Your task to perform on an android device: check battery use Image 0: 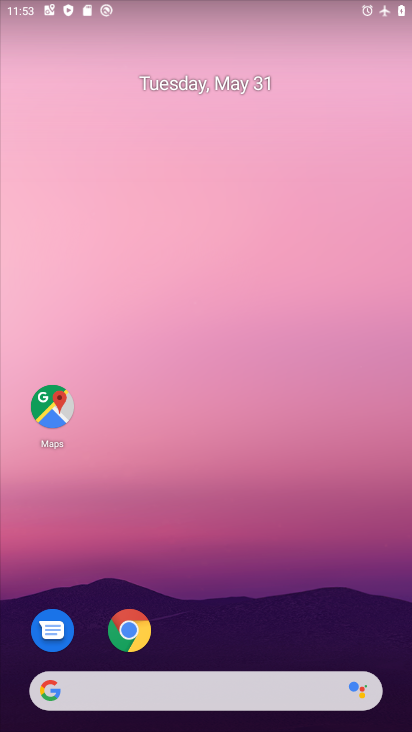
Step 0: drag from (137, 728) to (143, 31)
Your task to perform on an android device: check battery use Image 1: 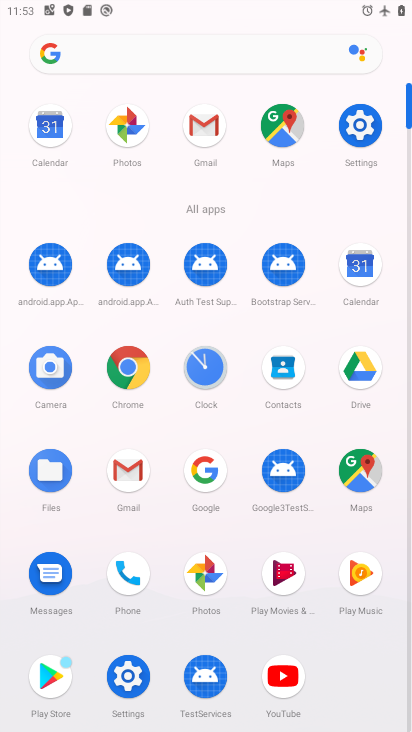
Step 1: click (117, 691)
Your task to perform on an android device: check battery use Image 2: 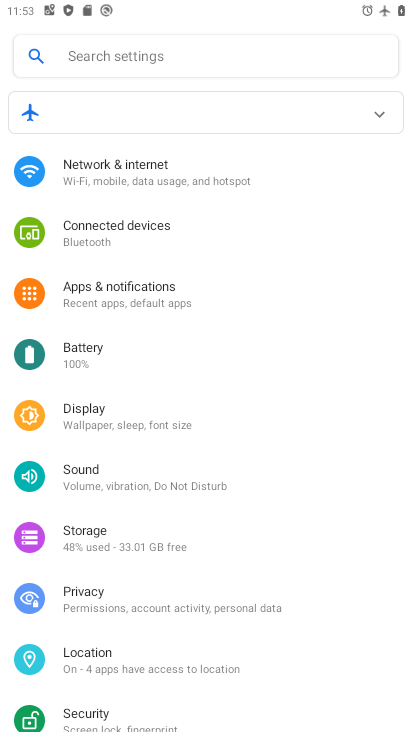
Step 2: click (154, 368)
Your task to perform on an android device: check battery use Image 3: 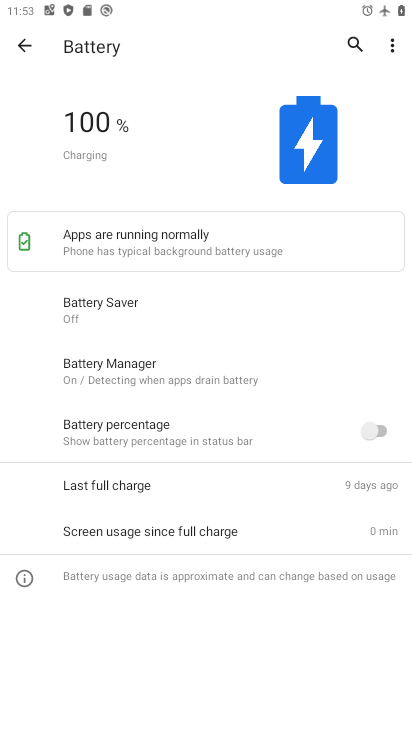
Step 3: click (393, 51)
Your task to perform on an android device: check battery use Image 4: 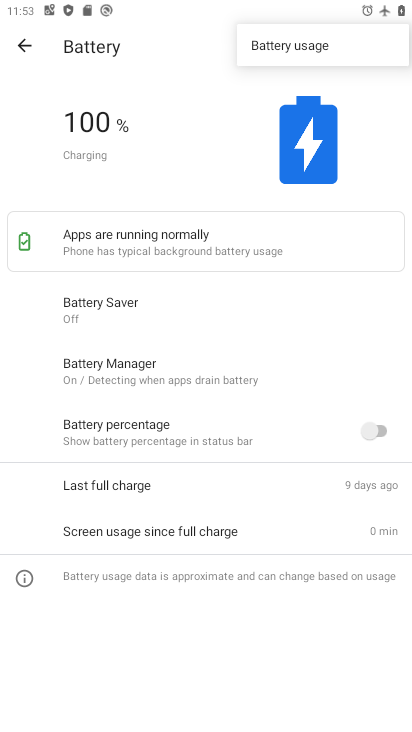
Step 4: click (332, 46)
Your task to perform on an android device: check battery use Image 5: 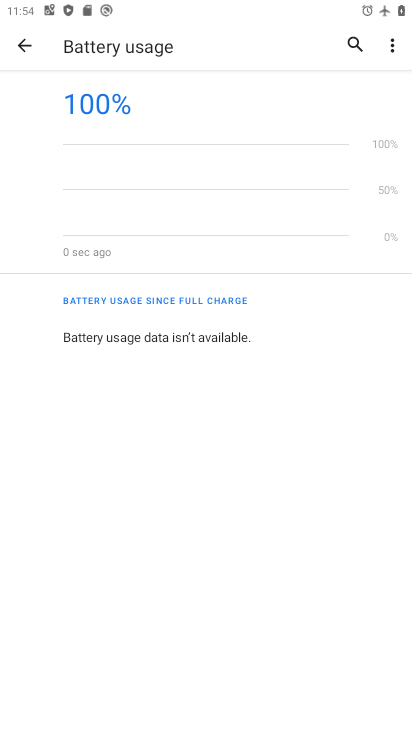
Step 5: task complete